Your task to perform on an android device: visit the assistant section in the google photos Image 0: 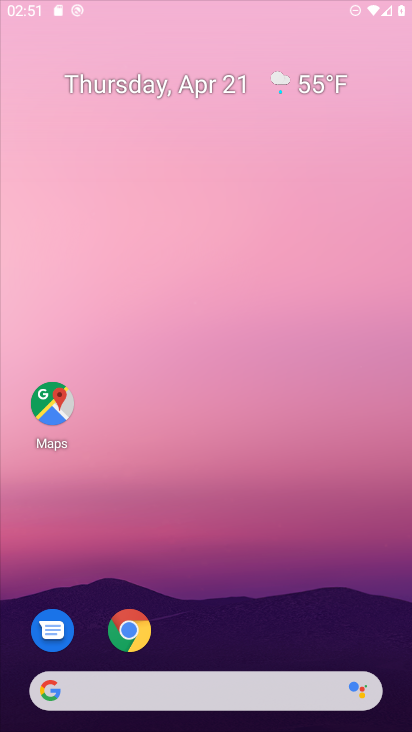
Step 0: click (139, 635)
Your task to perform on an android device: visit the assistant section in the google photos Image 1: 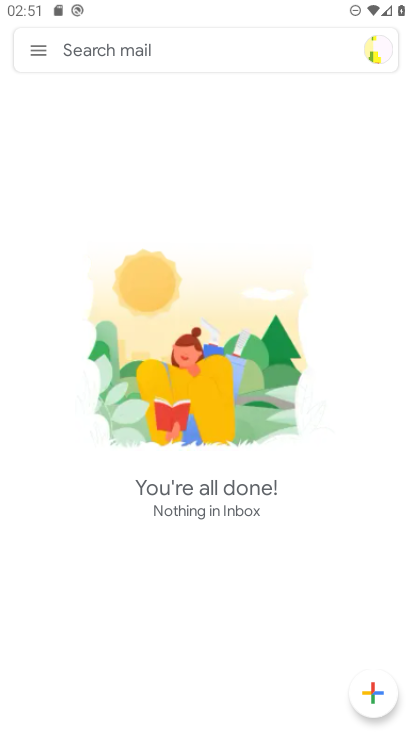
Step 1: press home button
Your task to perform on an android device: visit the assistant section in the google photos Image 2: 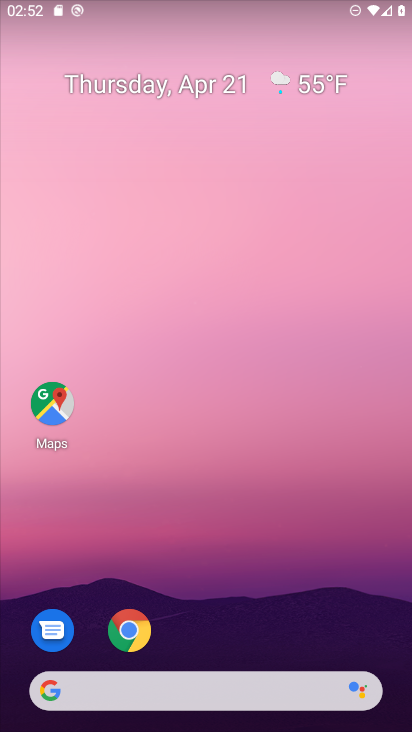
Step 2: drag from (302, 616) to (248, 8)
Your task to perform on an android device: visit the assistant section in the google photos Image 3: 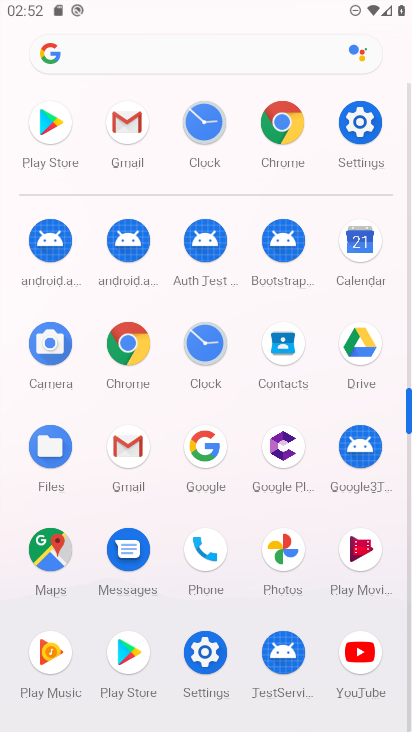
Step 3: click (269, 558)
Your task to perform on an android device: visit the assistant section in the google photos Image 4: 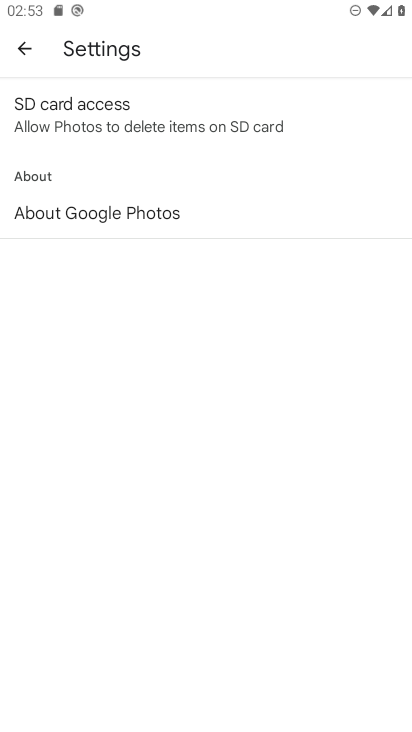
Step 4: click (31, 44)
Your task to perform on an android device: visit the assistant section in the google photos Image 5: 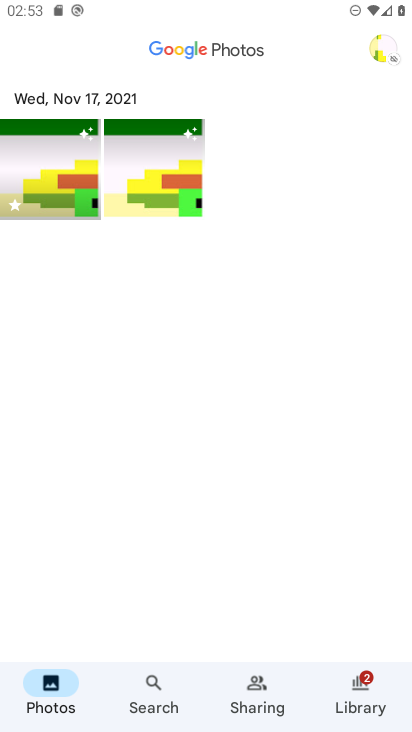
Step 5: task complete